Your task to perform on an android device: Go to sound settings Image 0: 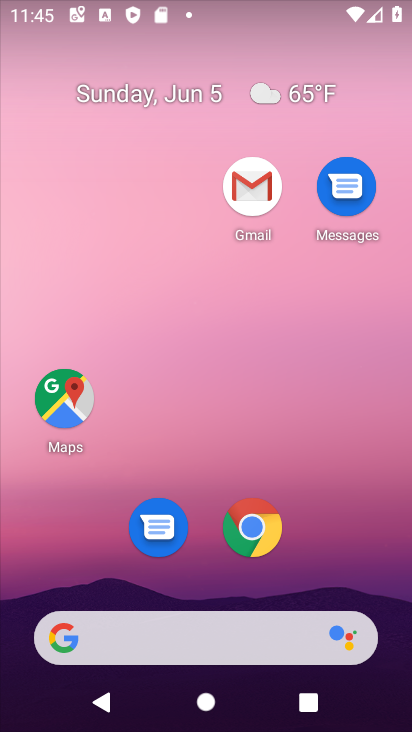
Step 0: drag from (353, 508) to (397, 33)
Your task to perform on an android device: Go to sound settings Image 1: 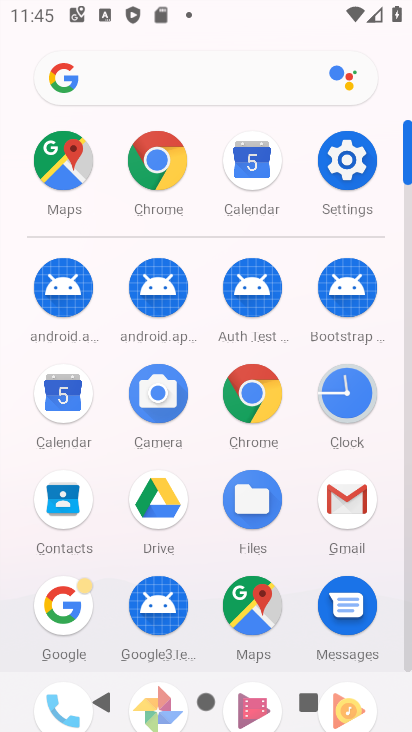
Step 1: click (341, 164)
Your task to perform on an android device: Go to sound settings Image 2: 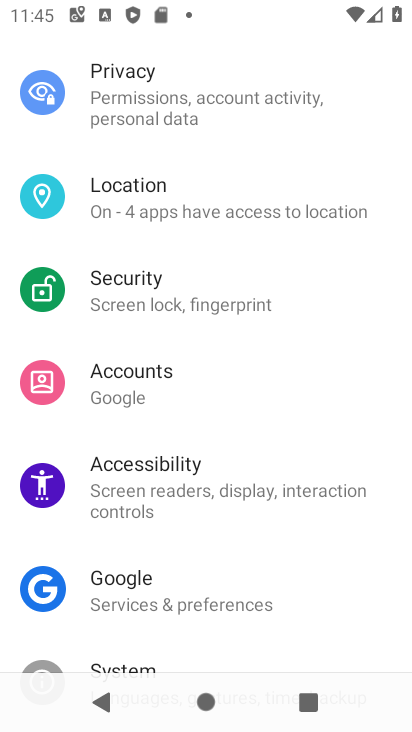
Step 2: drag from (286, 144) to (259, 554)
Your task to perform on an android device: Go to sound settings Image 3: 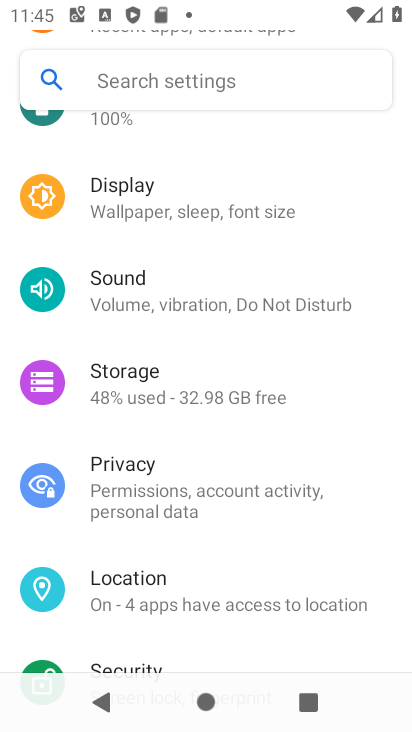
Step 3: click (239, 275)
Your task to perform on an android device: Go to sound settings Image 4: 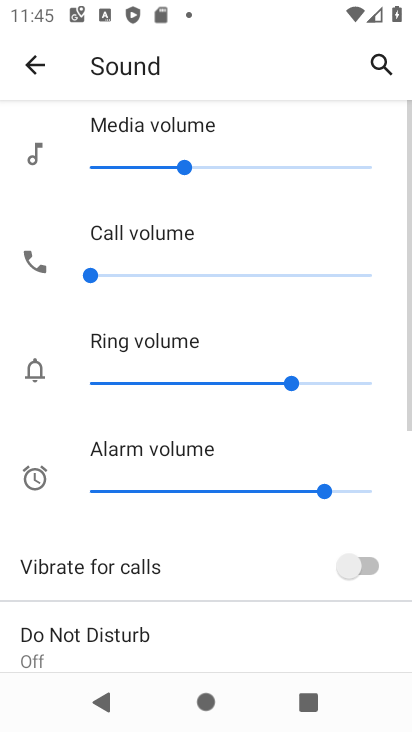
Step 4: task complete